Your task to perform on an android device: turn on sleep mode Image 0: 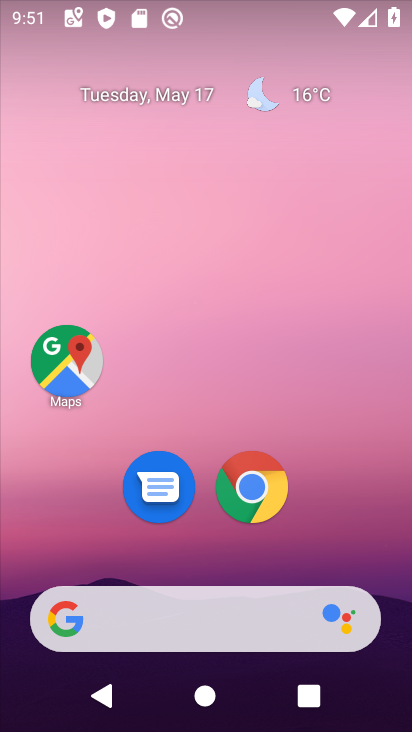
Step 0: drag from (234, 448) to (240, 1)
Your task to perform on an android device: turn on sleep mode Image 1: 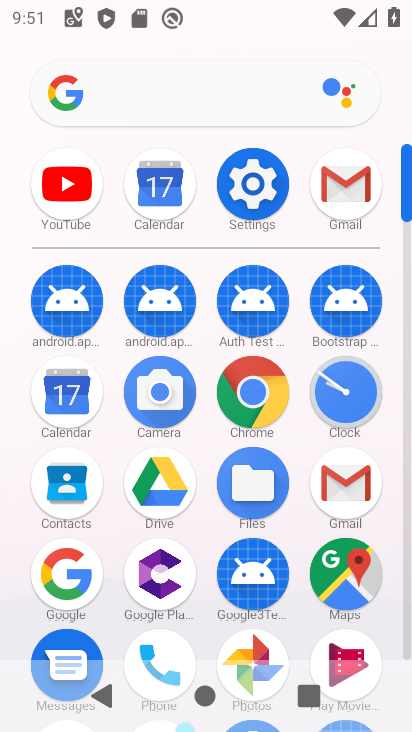
Step 1: click (247, 198)
Your task to perform on an android device: turn on sleep mode Image 2: 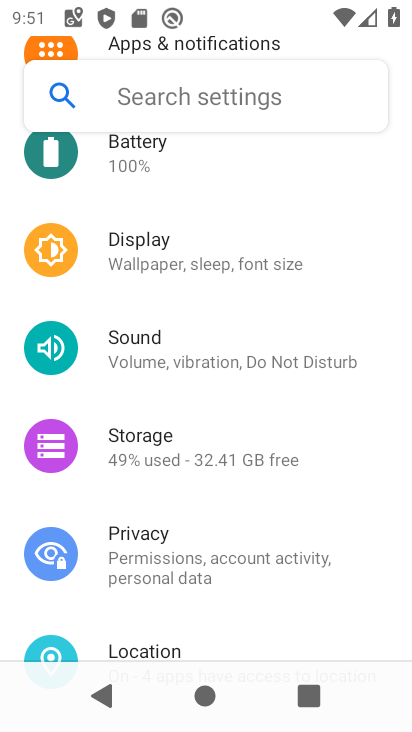
Step 2: click (210, 97)
Your task to perform on an android device: turn on sleep mode Image 3: 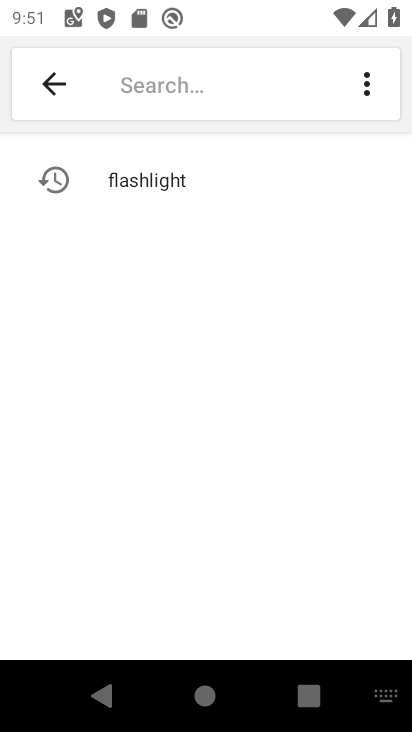
Step 3: type "sleep mode"
Your task to perform on an android device: turn on sleep mode Image 4: 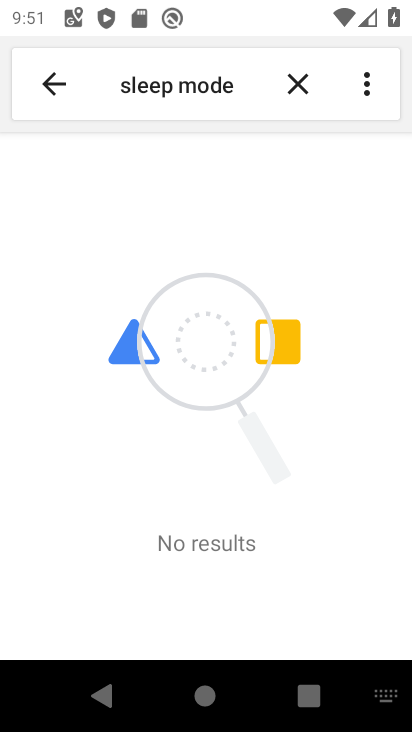
Step 4: task complete